Your task to perform on an android device: turn on location history Image 0: 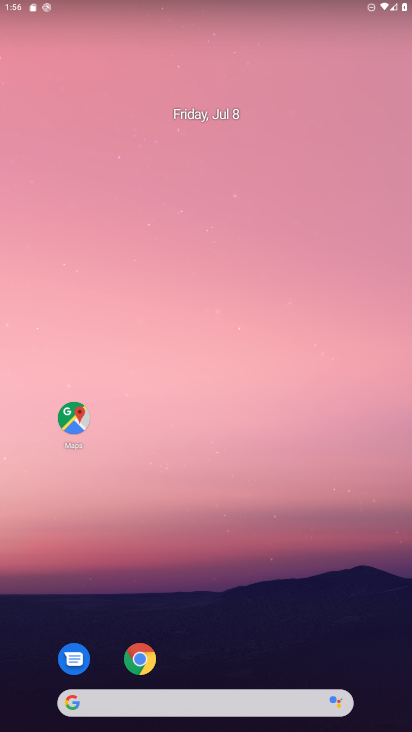
Step 0: drag from (191, 668) to (209, 103)
Your task to perform on an android device: turn on location history Image 1: 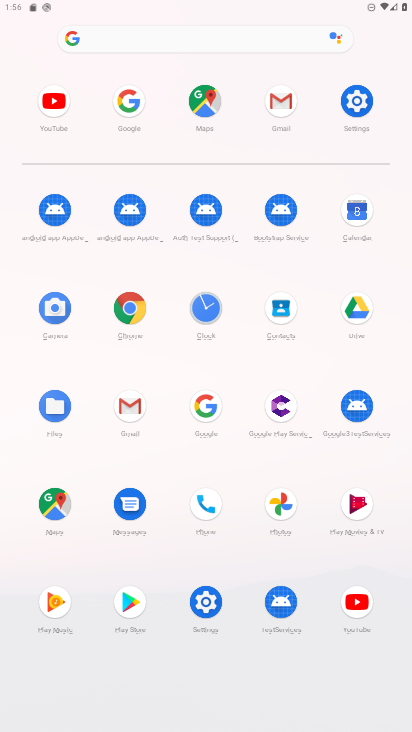
Step 1: click (206, 603)
Your task to perform on an android device: turn on location history Image 2: 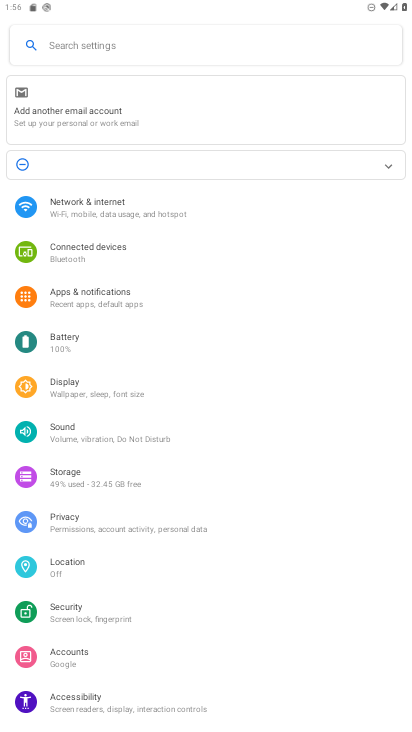
Step 2: click (70, 557)
Your task to perform on an android device: turn on location history Image 3: 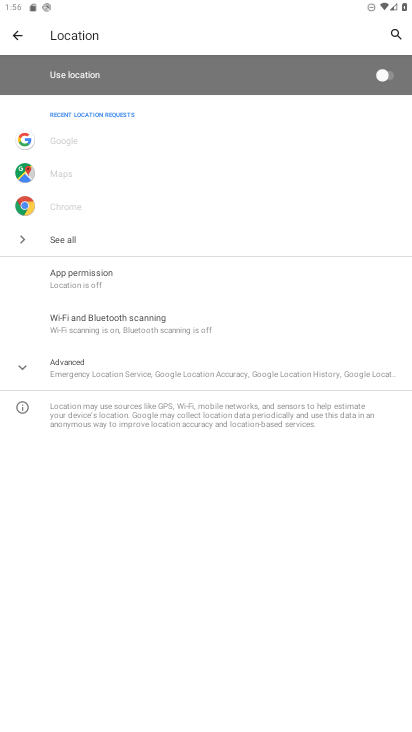
Step 3: click (116, 378)
Your task to perform on an android device: turn on location history Image 4: 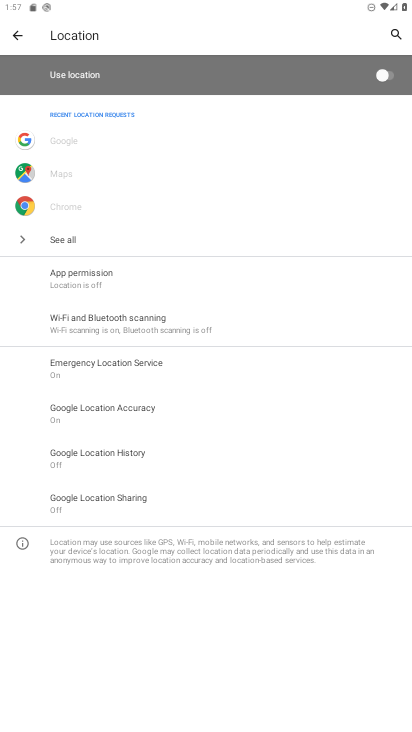
Step 4: click (129, 455)
Your task to perform on an android device: turn on location history Image 5: 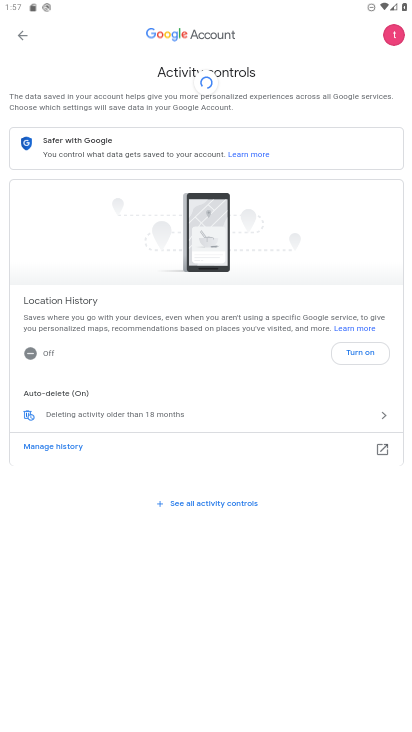
Step 5: click (371, 353)
Your task to perform on an android device: turn on location history Image 6: 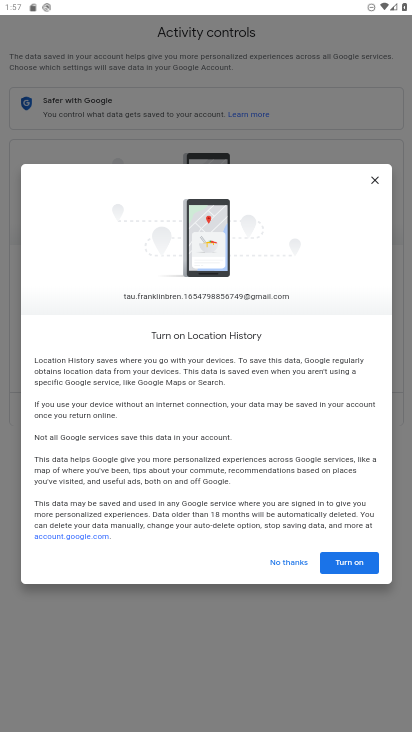
Step 6: click (354, 562)
Your task to perform on an android device: turn on location history Image 7: 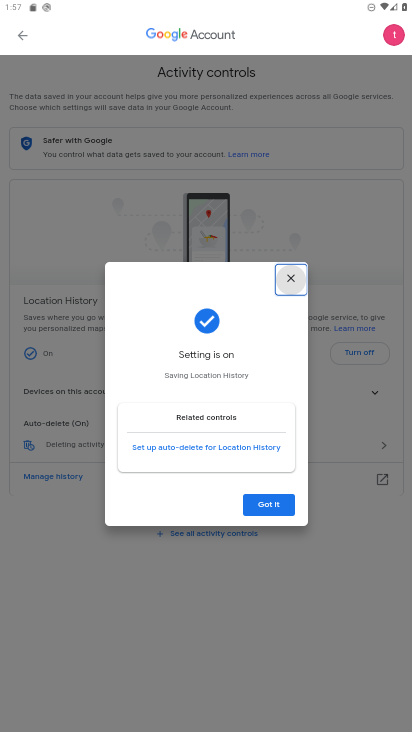
Step 7: click (280, 501)
Your task to perform on an android device: turn on location history Image 8: 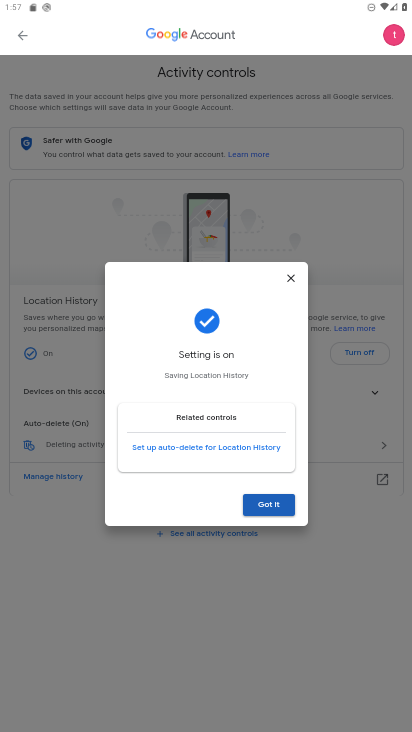
Step 8: click (280, 501)
Your task to perform on an android device: turn on location history Image 9: 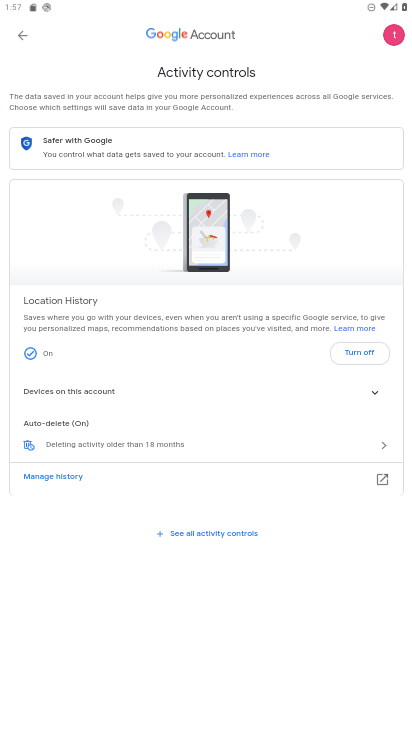
Step 9: task complete